Your task to perform on an android device: Open the calendar app, open the side menu, and click the "Day" option Image 0: 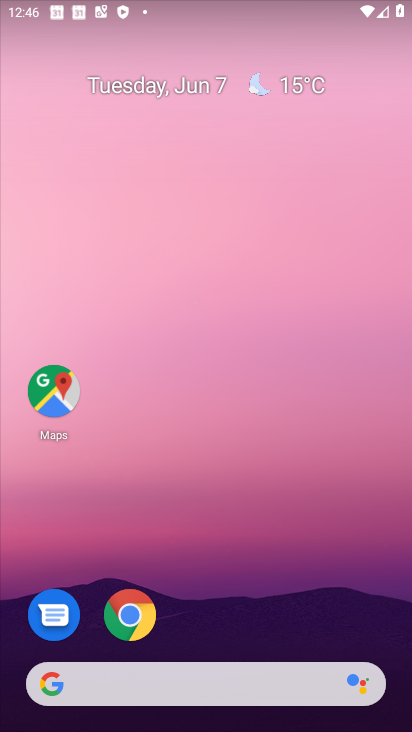
Step 0: drag from (206, 624) to (210, 0)
Your task to perform on an android device: Open the calendar app, open the side menu, and click the "Day" option Image 1: 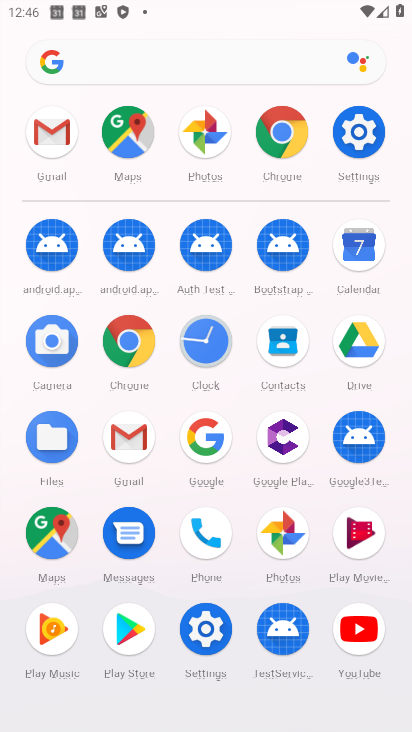
Step 1: click (353, 294)
Your task to perform on an android device: Open the calendar app, open the side menu, and click the "Day" option Image 2: 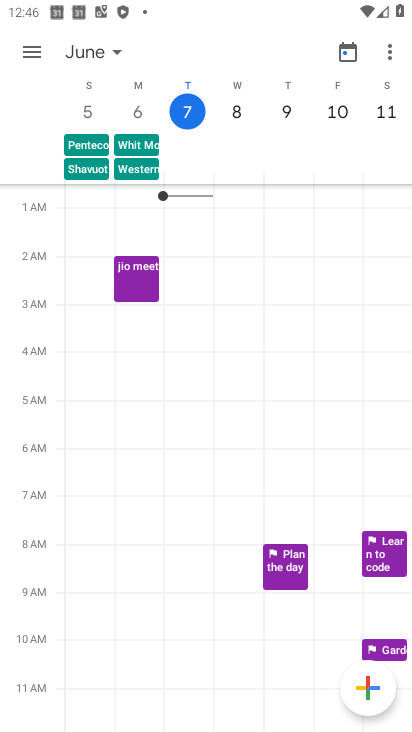
Step 2: click (30, 44)
Your task to perform on an android device: Open the calendar app, open the side menu, and click the "Day" option Image 3: 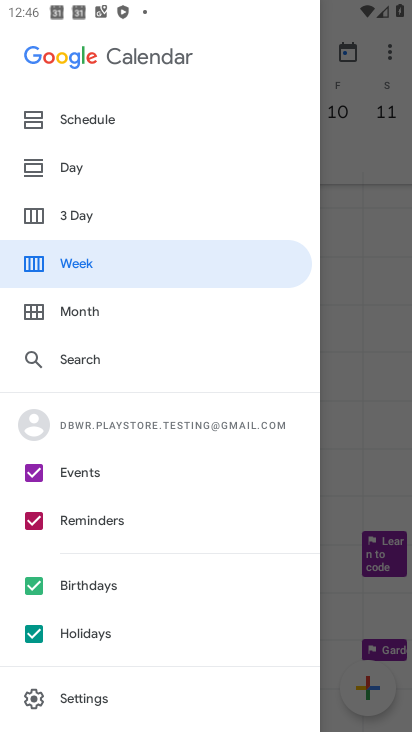
Step 3: click (93, 165)
Your task to perform on an android device: Open the calendar app, open the side menu, and click the "Day" option Image 4: 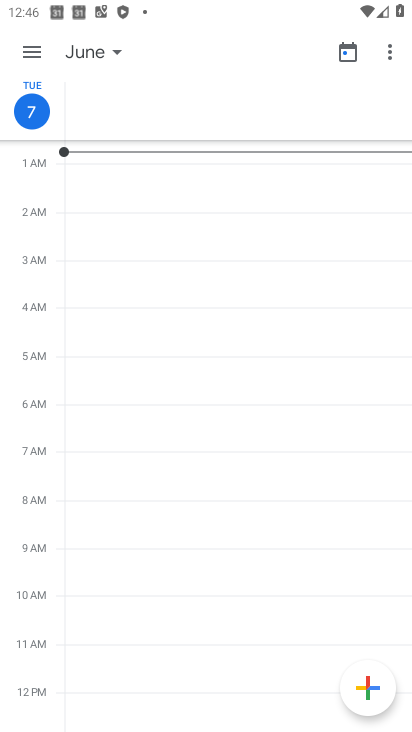
Step 4: task complete